Your task to perform on an android device: create a new album in the google photos Image 0: 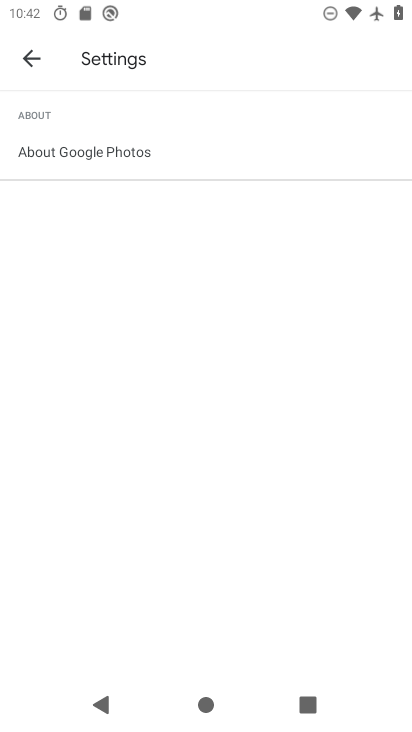
Step 0: press home button
Your task to perform on an android device: create a new album in the google photos Image 1: 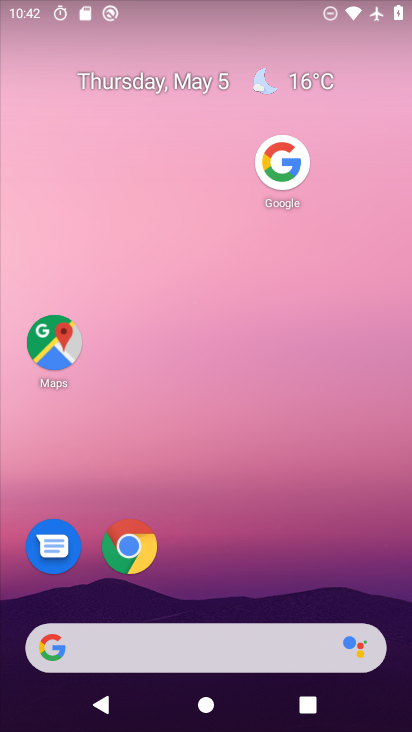
Step 1: drag from (133, 644) to (295, 158)
Your task to perform on an android device: create a new album in the google photos Image 2: 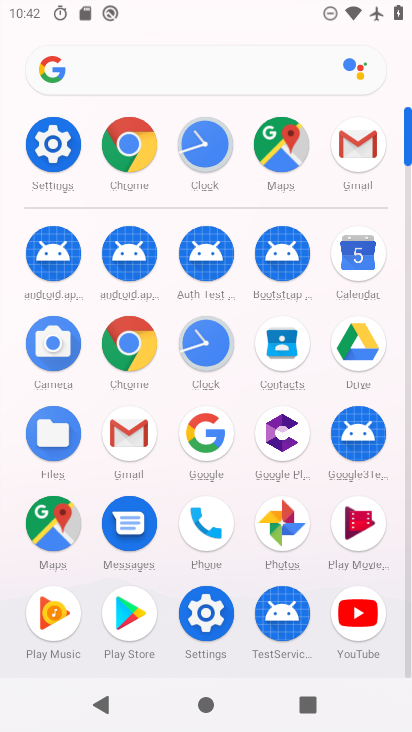
Step 2: click (275, 531)
Your task to perform on an android device: create a new album in the google photos Image 3: 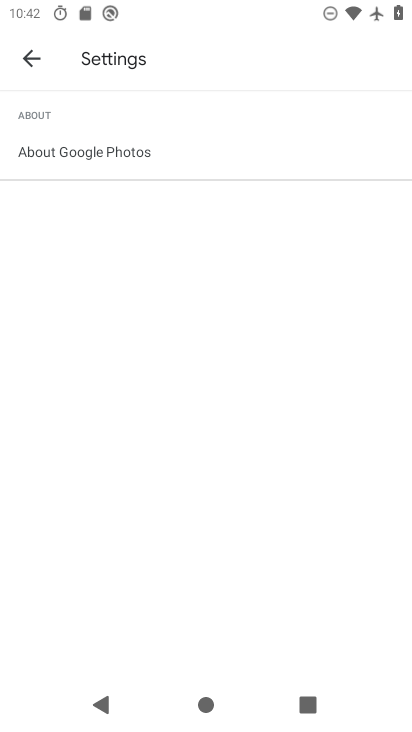
Step 3: click (36, 52)
Your task to perform on an android device: create a new album in the google photos Image 4: 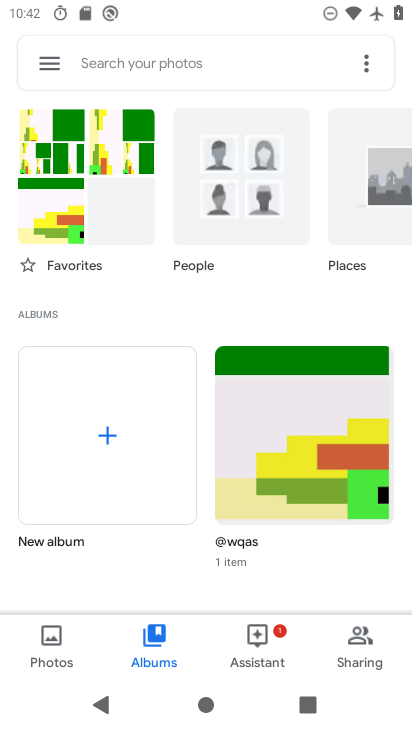
Step 4: click (108, 430)
Your task to perform on an android device: create a new album in the google photos Image 5: 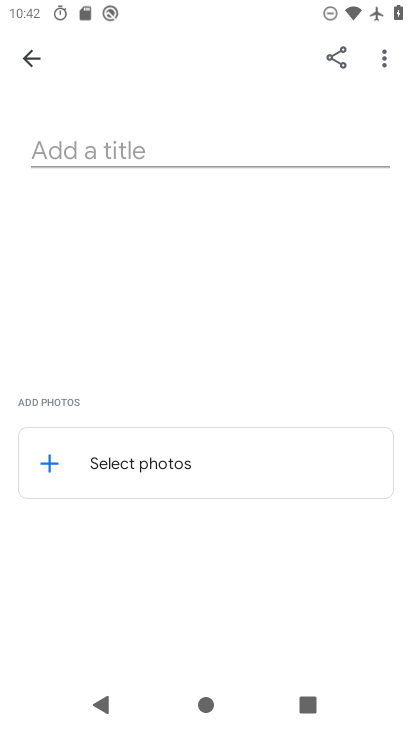
Step 5: click (141, 460)
Your task to perform on an android device: create a new album in the google photos Image 6: 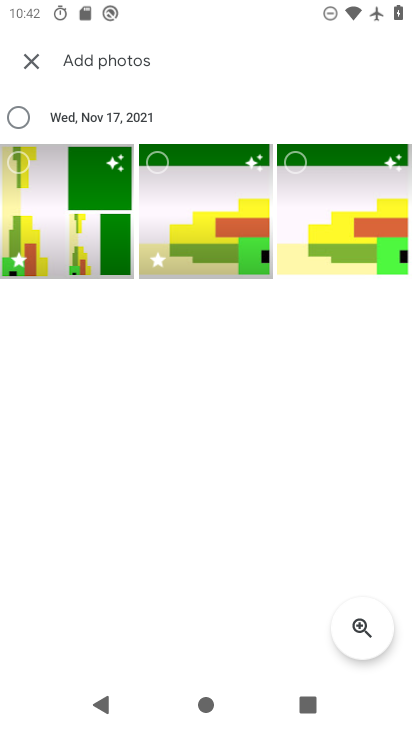
Step 6: click (17, 160)
Your task to perform on an android device: create a new album in the google photos Image 7: 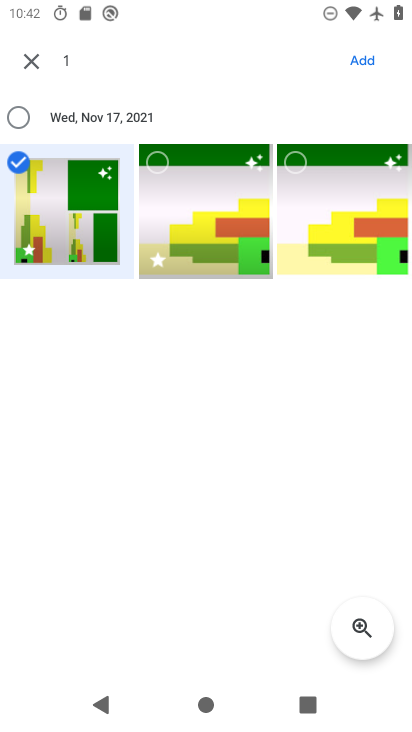
Step 7: click (162, 165)
Your task to perform on an android device: create a new album in the google photos Image 8: 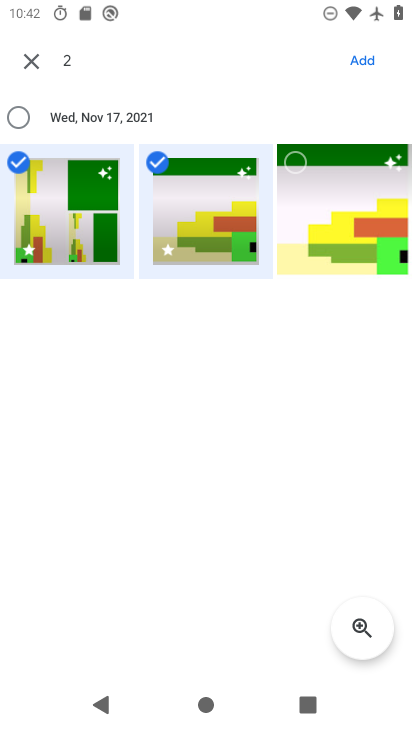
Step 8: click (298, 172)
Your task to perform on an android device: create a new album in the google photos Image 9: 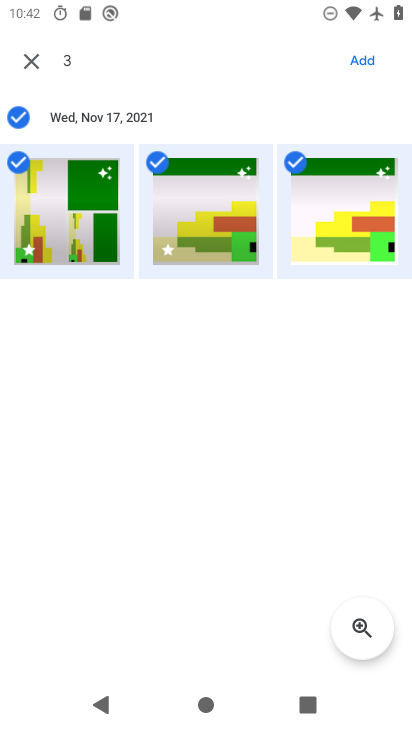
Step 9: click (371, 60)
Your task to perform on an android device: create a new album in the google photos Image 10: 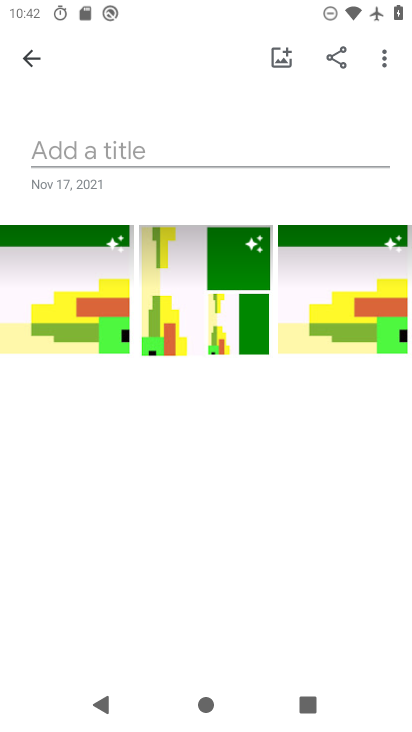
Step 10: task complete